Your task to perform on an android device: Is it going to rain tomorrow? Image 0: 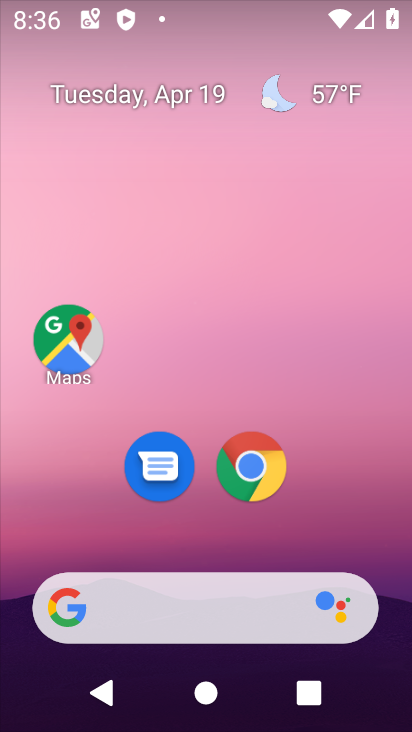
Step 0: click (279, 96)
Your task to perform on an android device: Is it going to rain tomorrow? Image 1: 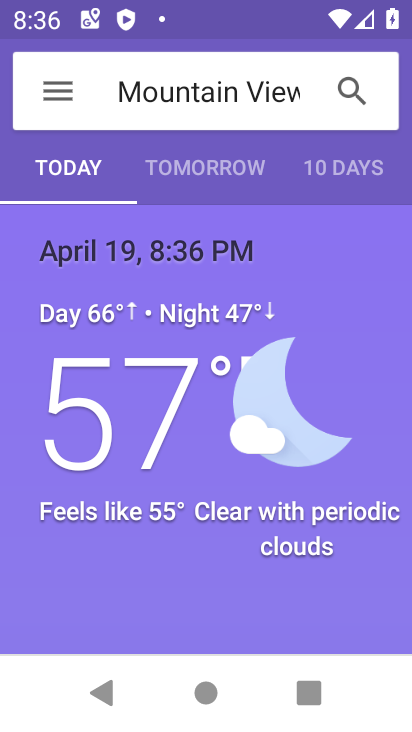
Step 1: click (219, 168)
Your task to perform on an android device: Is it going to rain tomorrow? Image 2: 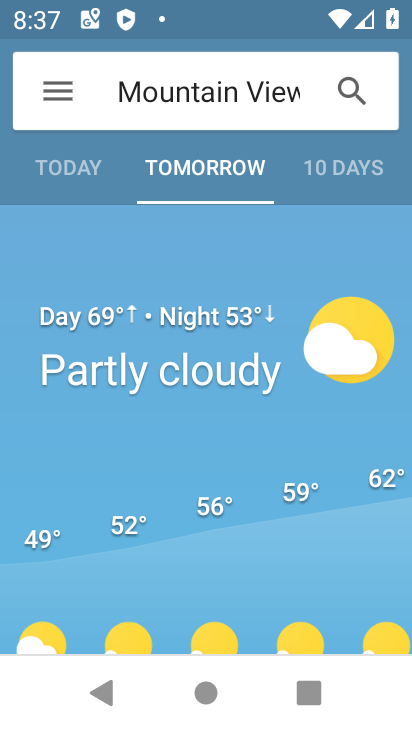
Step 2: task complete